Your task to perform on an android device: Open notification settings Image 0: 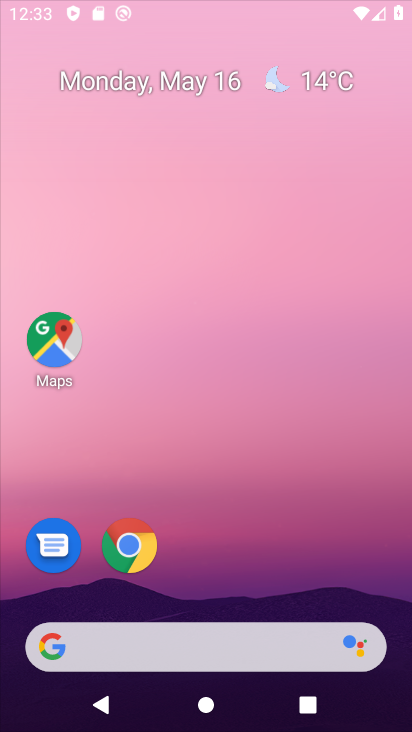
Step 0: drag from (298, 657) to (280, 226)
Your task to perform on an android device: Open notification settings Image 1: 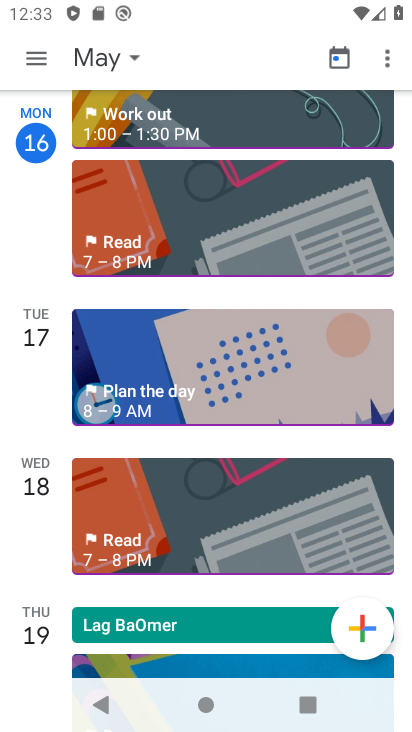
Step 1: press home button
Your task to perform on an android device: Open notification settings Image 2: 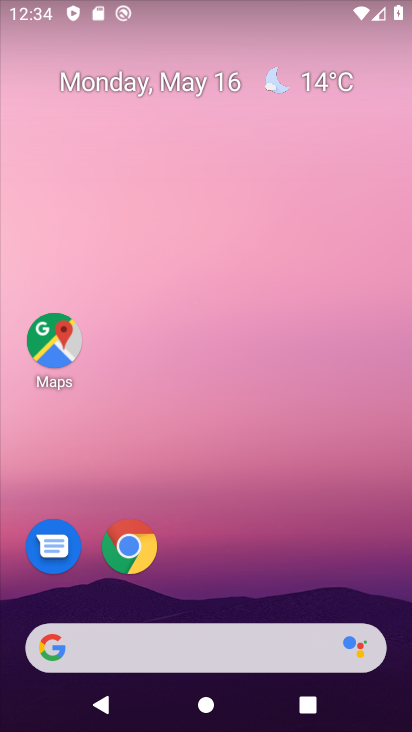
Step 2: drag from (252, 668) to (241, 102)
Your task to perform on an android device: Open notification settings Image 3: 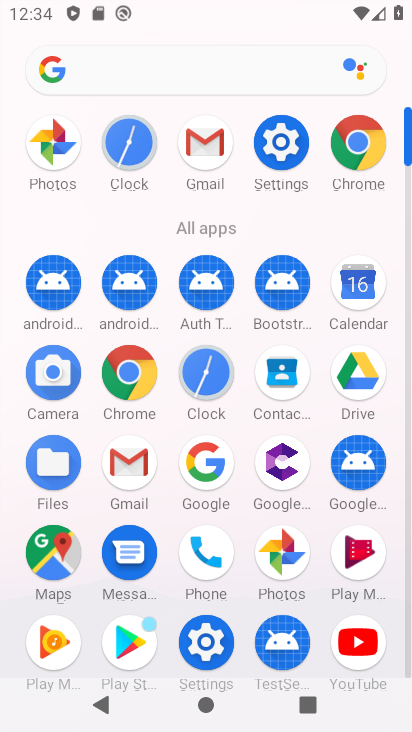
Step 3: click (280, 170)
Your task to perform on an android device: Open notification settings Image 4: 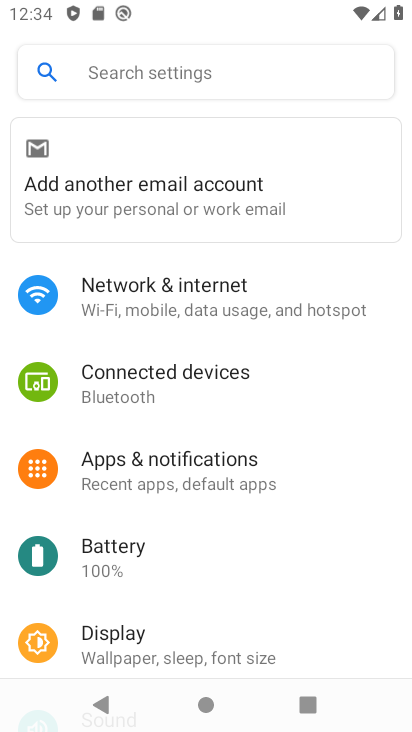
Step 4: click (235, 74)
Your task to perform on an android device: Open notification settings Image 5: 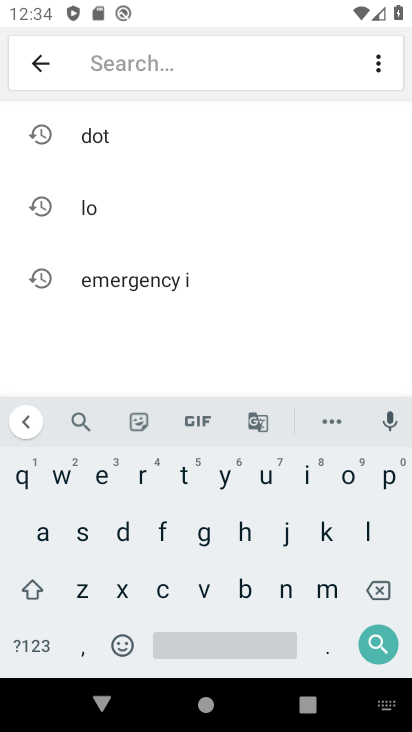
Step 5: click (279, 591)
Your task to perform on an android device: Open notification settings Image 6: 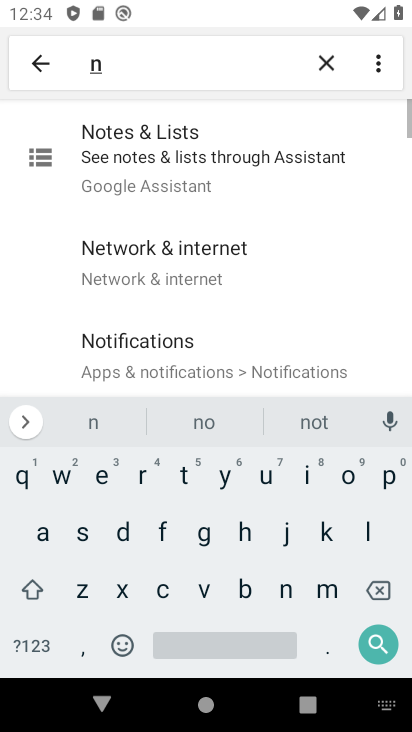
Step 6: click (347, 480)
Your task to perform on an android device: Open notification settings Image 7: 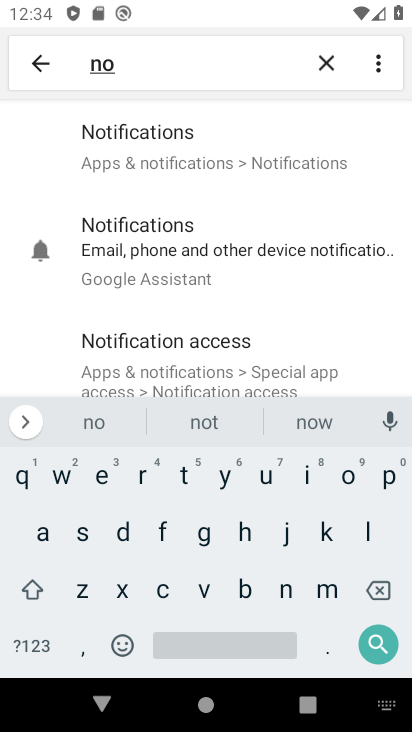
Step 7: click (205, 168)
Your task to perform on an android device: Open notification settings Image 8: 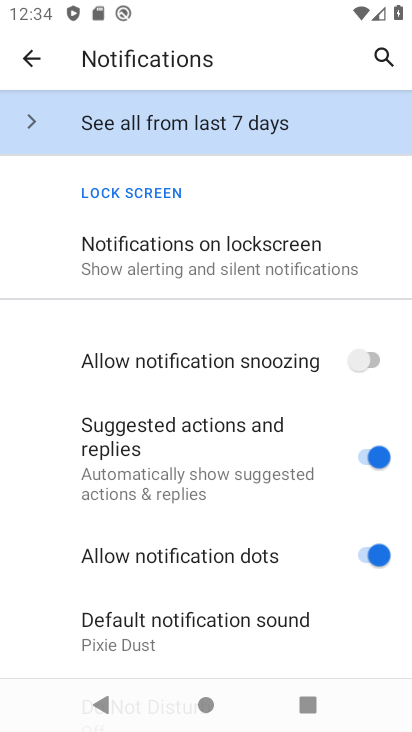
Step 8: click (179, 235)
Your task to perform on an android device: Open notification settings Image 9: 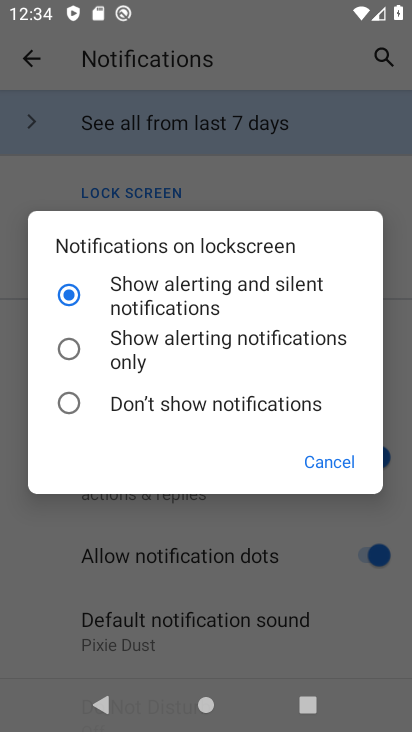
Step 9: task complete